Your task to perform on an android device: Show me recent news Image 0: 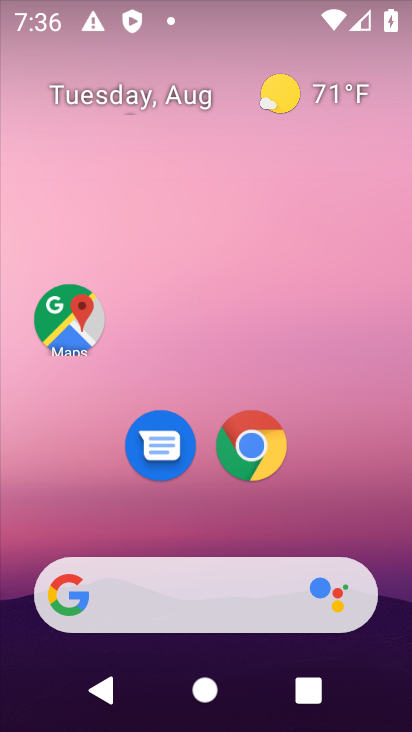
Step 0: drag from (4, 233) to (392, 327)
Your task to perform on an android device: Show me recent news Image 1: 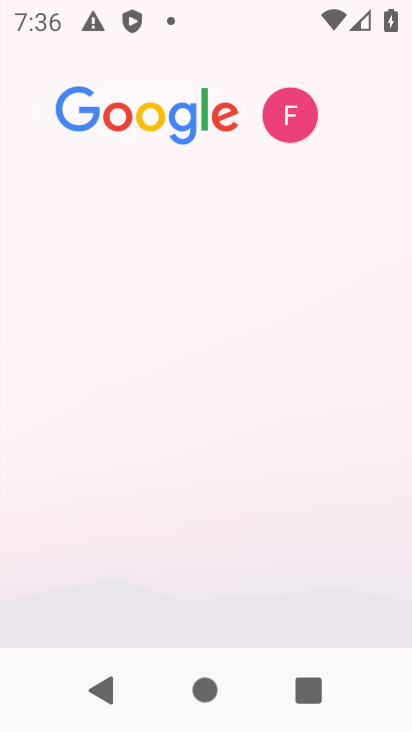
Step 1: task complete